Your task to perform on an android device: Toggle the flashlight Image 0: 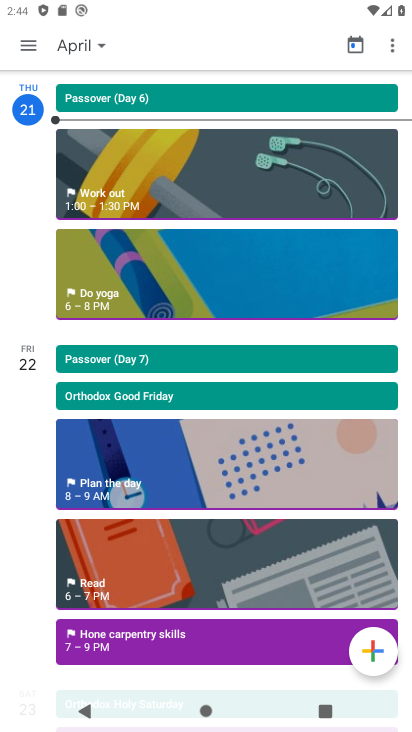
Step 0: press home button
Your task to perform on an android device: Toggle the flashlight Image 1: 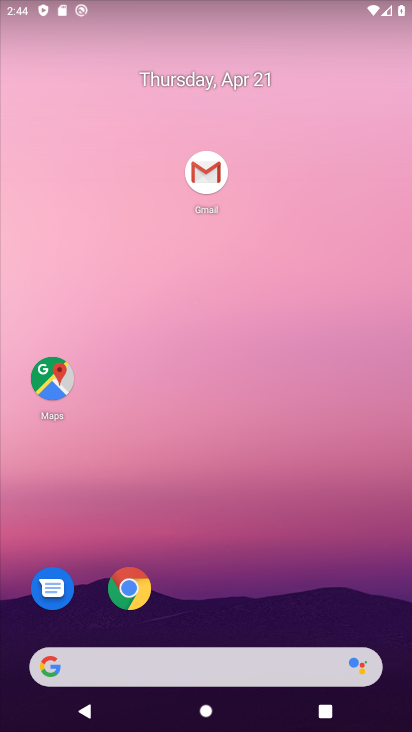
Step 1: task complete